Your task to perform on an android device: find snoozed emails in the gmail app Image 0: 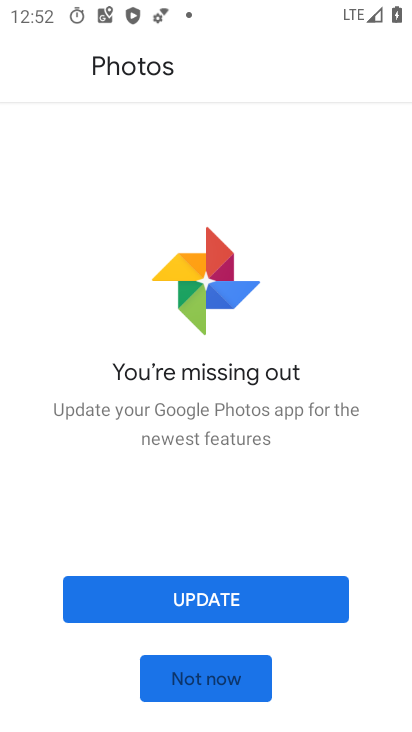
Step 0: press home button
Your task to perform on an android device: find snoozed emails in the gmail app Image 1: 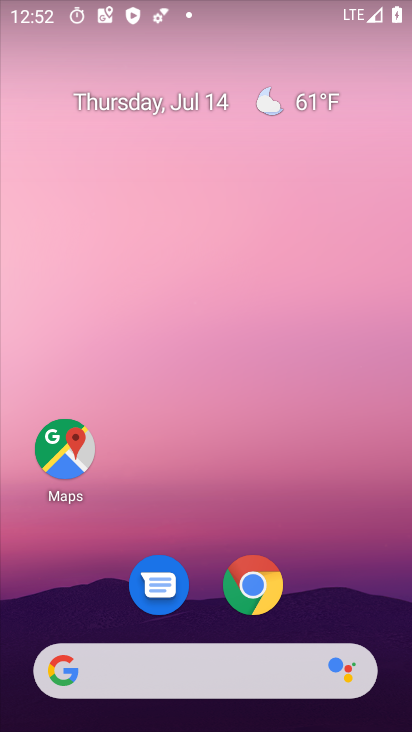
Step 1: drag from (324, 571) to (410, 123)
Your task to perform on an android device: find snoozed emails in the gmail app Image 2: 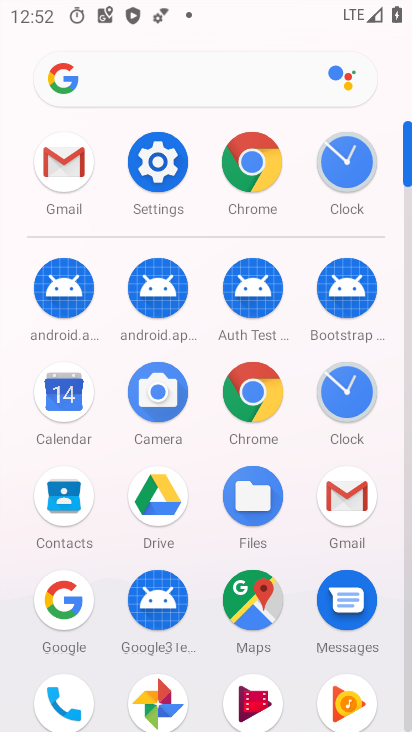
Step 2: click (58, 159)
Your task to perform on an android device: find snoozed emails in the gmail app Image 3: 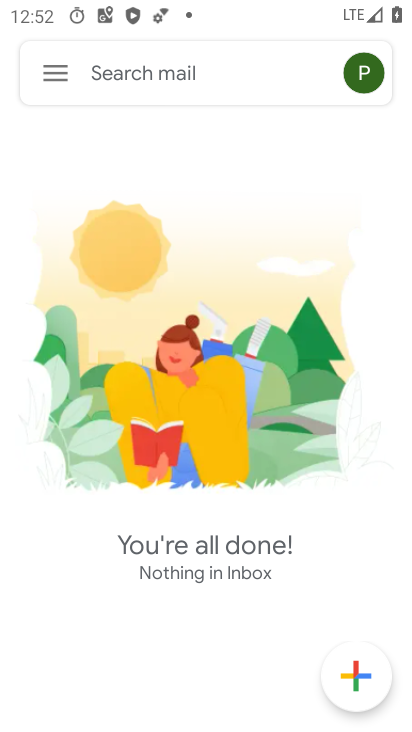
Step 3: click (55, 67)
Your task to perform on an android device: find snoozed emails in the gmail app Image 4: 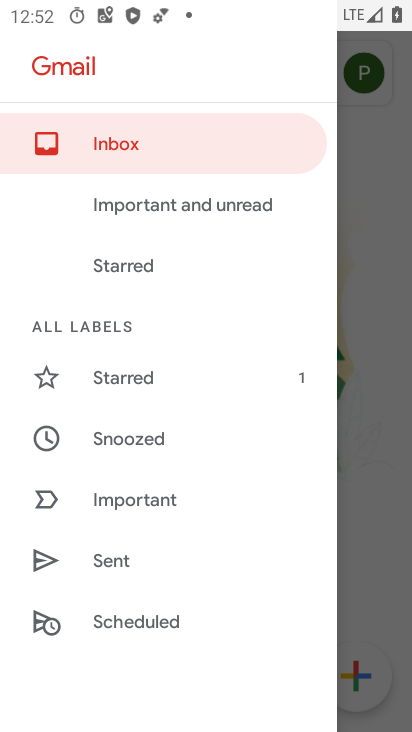
Step 4: click (135, 428)
Your task to perform on an android device: find snoozed emails in the gmail app Image 5: 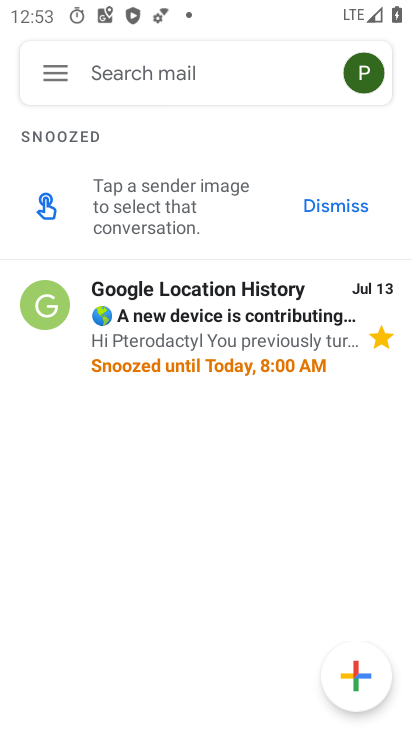
Step 5: task complete